Your task to perform on an android device: turn on javascript in the chrome app Image 0: 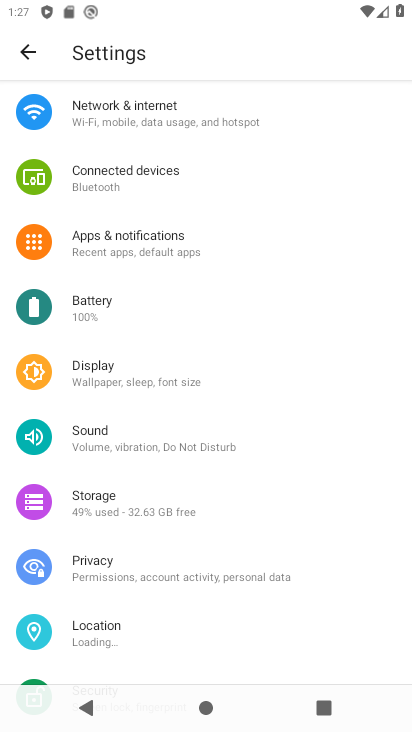
Step 0: press home button
Your task to perform on an android device: turn on javascript in the chrome app Image 1: 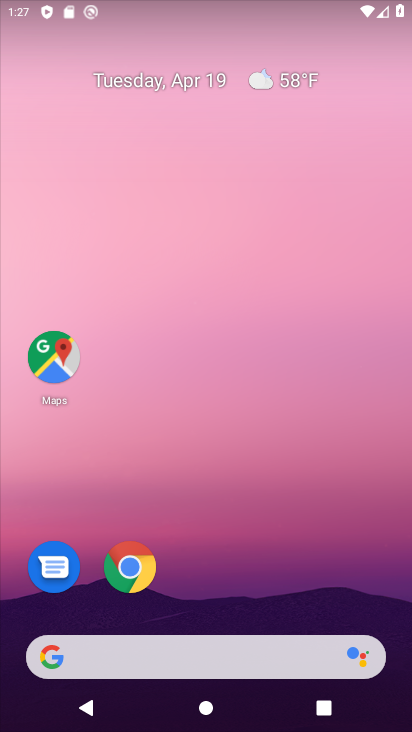
Step 1: click (146, 568)
Your task to perform on an android device: turn on javascript in the chrome app Image 2: 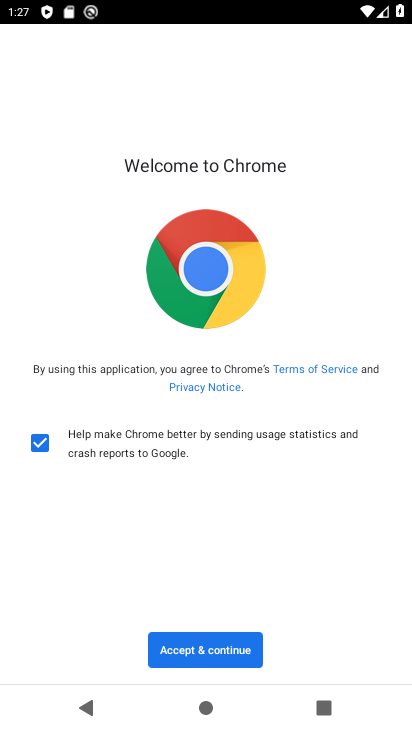
Step 2: click (208, 653)
Your task to perform on an android device: turn on javascript in the chrome app Image 3: 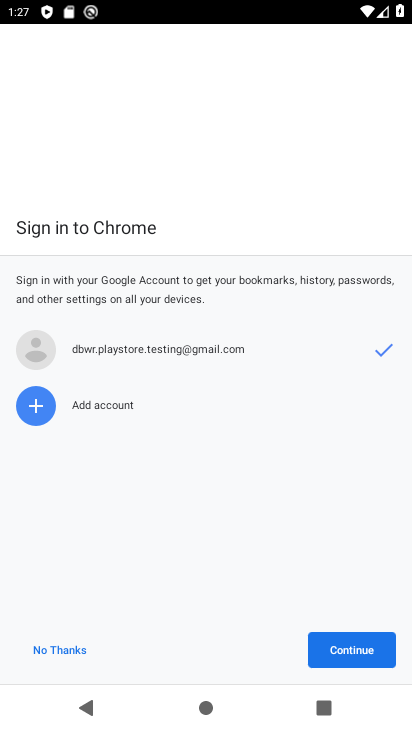
Step 3: click (315, 653)
Your task to perform on an android device: turn on javascript in the chrome app Image 4: 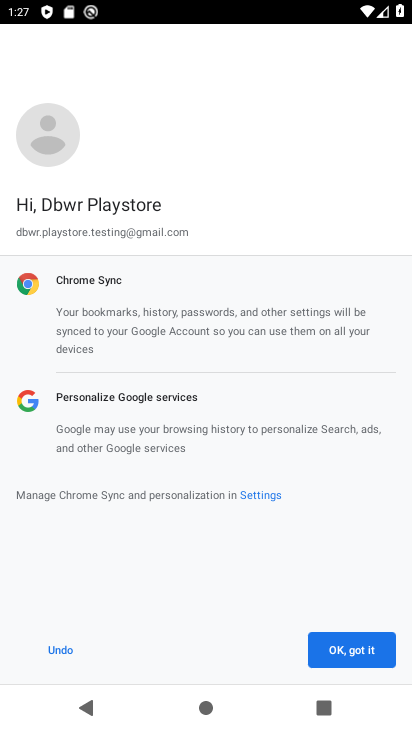
Step 4: click (320, 650)
Your task to perform on an android device: turn on javascript in the chrome app Image 5: 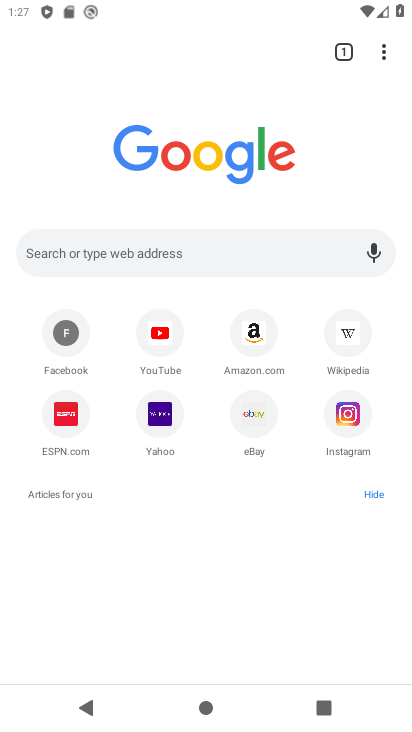
Step 5: click (389, 54)
Your task to perform on an android device: turn on javascript in the chrome app Image 6: 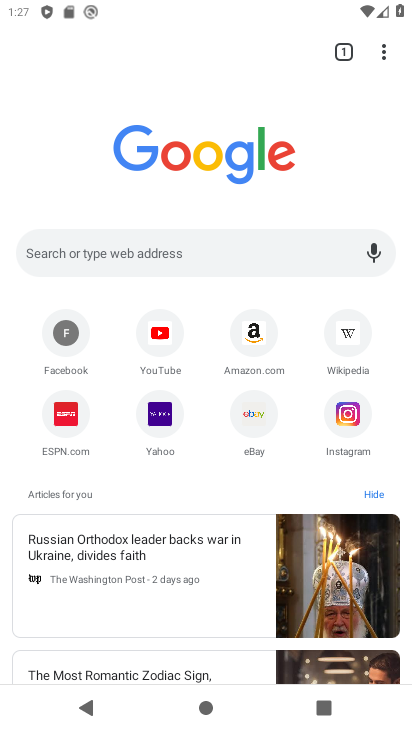
Step 6: drag from (380, 55) to (235, 446)
Your task to perform on an android device: turn on javascript in the chrome app Image 7: 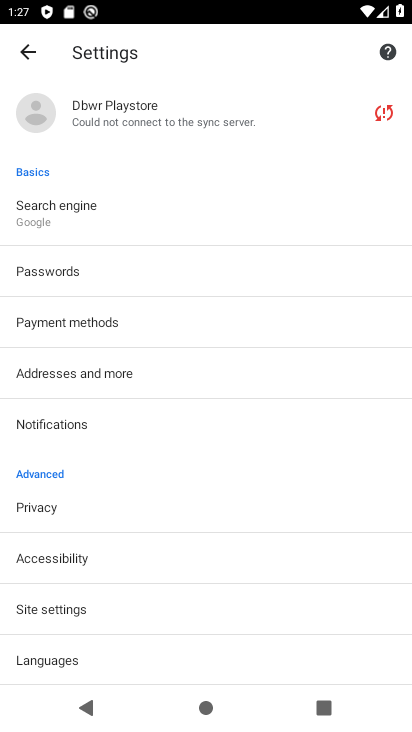
Step 7: click (64, 609)
Your task to perform on an android device: turn on javascript in the chrome app Image 8: 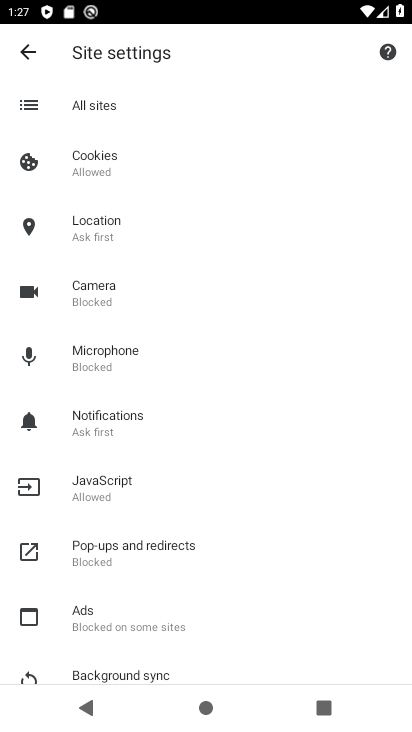
Step 8: click (150, 482)
Your task to perform on an android device: turn on javascript in the chrome app Image 9: 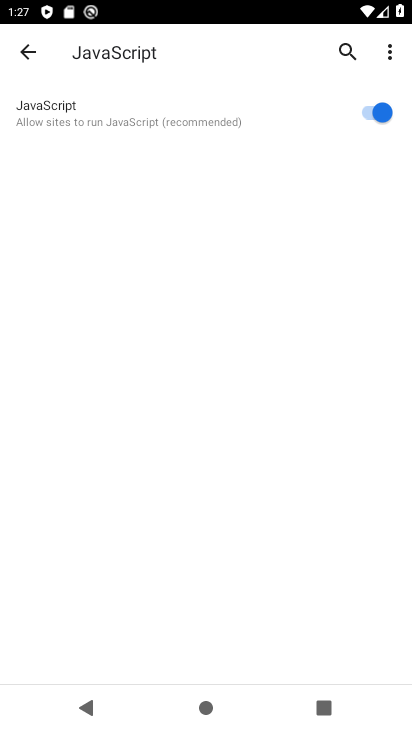
Step 9: task complete